Your task to perform on an android device: see sites visited before in the chrome app Image 0: 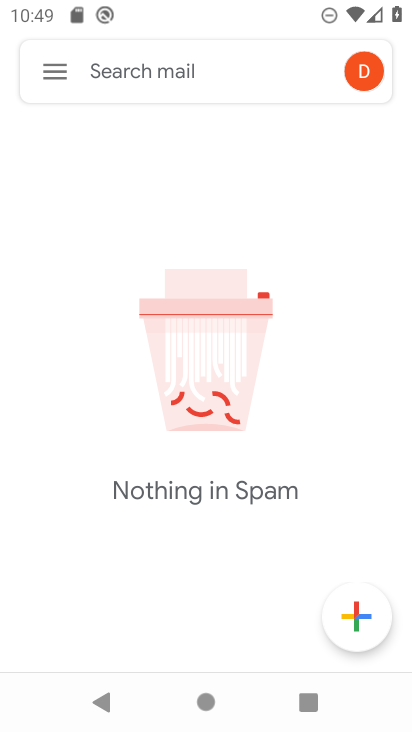
Step 0: press home button
Your task to perform on an android device: see sites visited before in the chrome app Image 1: 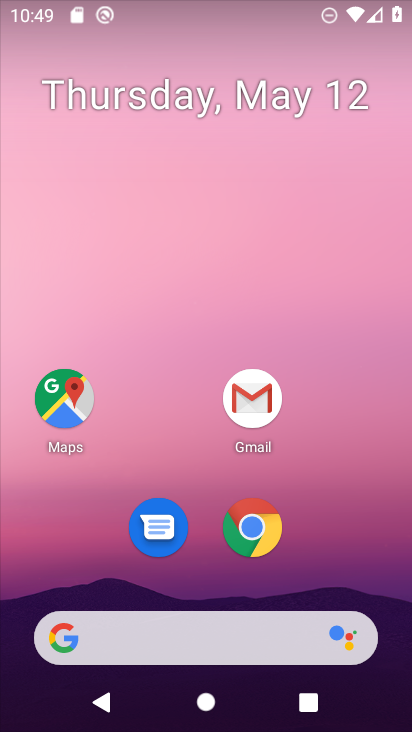
Step 1: click (273, 537)
Your task to perform on an android device: see sites visited before in the chrome app Image 2: 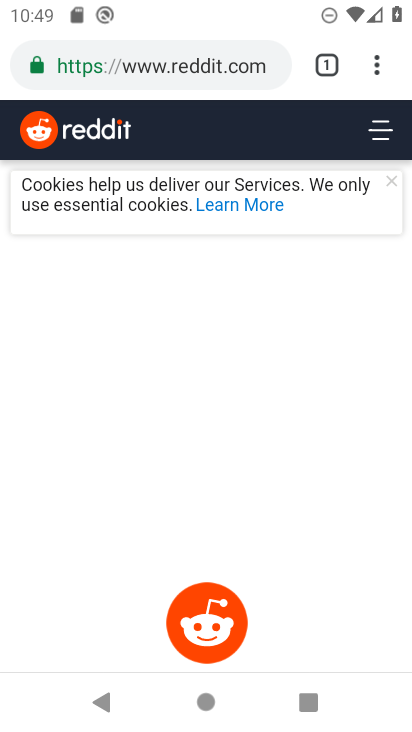
Step 2: click (366, 76)
Your task to perform on an android device: see sites visited before in the chrome app Image 3: 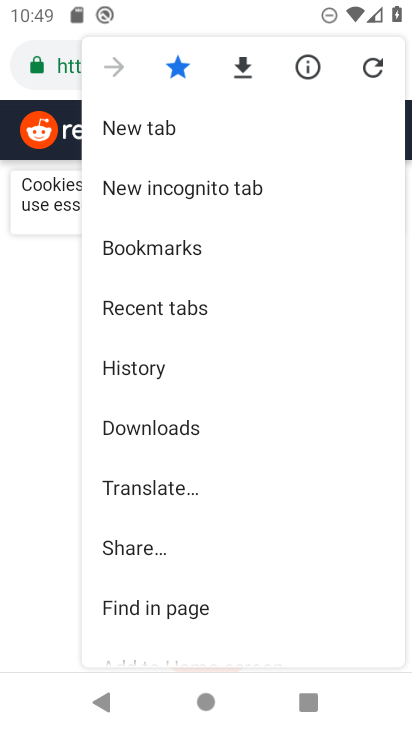
Step 3: drag from (183, 592) to (195, 474)
Your task to perform on an android device: see sites visited before in the chrome app Image 4: 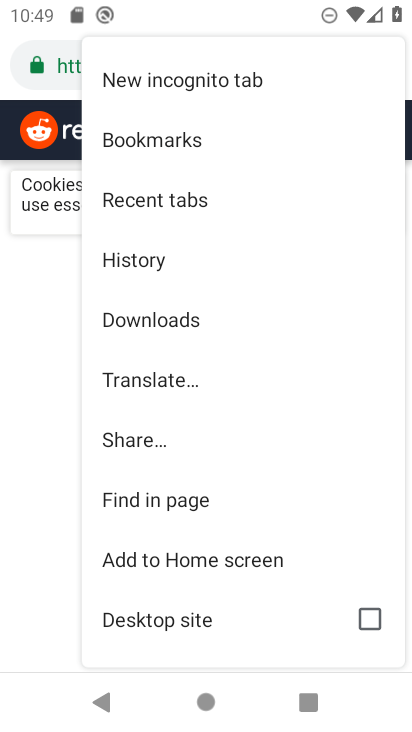
Step 4: click (191, 209)
Your task to perform on an android device: see sites visited before in the chrome app Image 5: 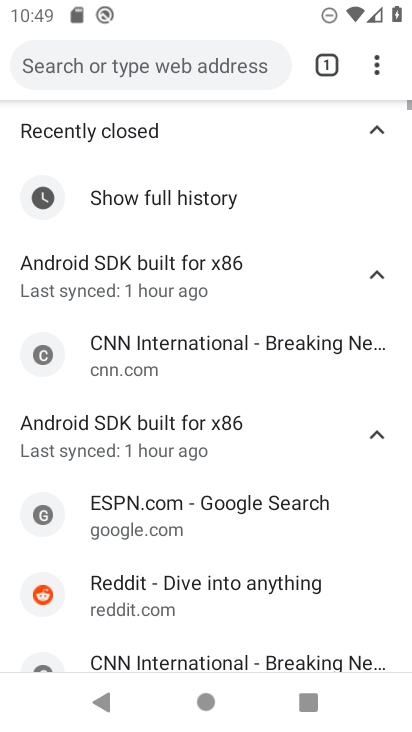
Step 5: task complete